Your task to perform on an android device: Go to Android settings Image 0: 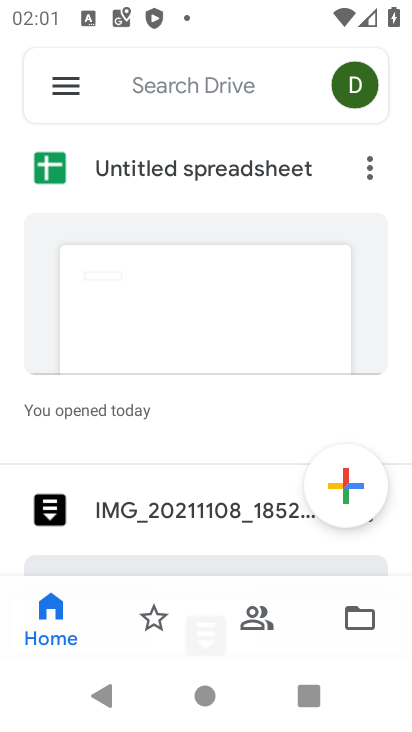
Step 0: press home button
Your task to perform on an android device: Go to Android settings Image 1: 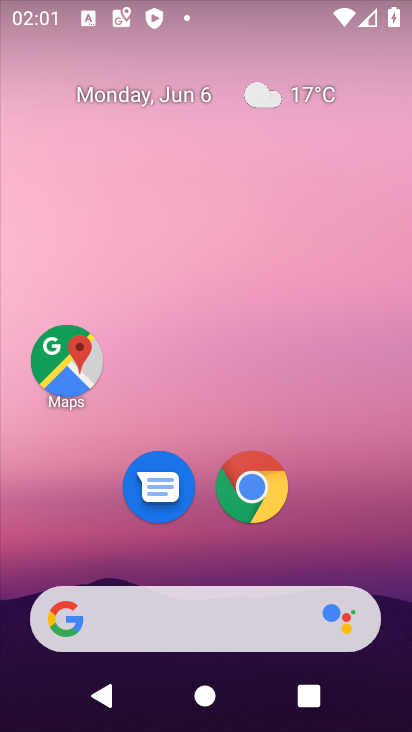
Step 1: drag from (401, 632) to (314, 40)
Your task to perform on an android device: Go to Android settings Image 2: 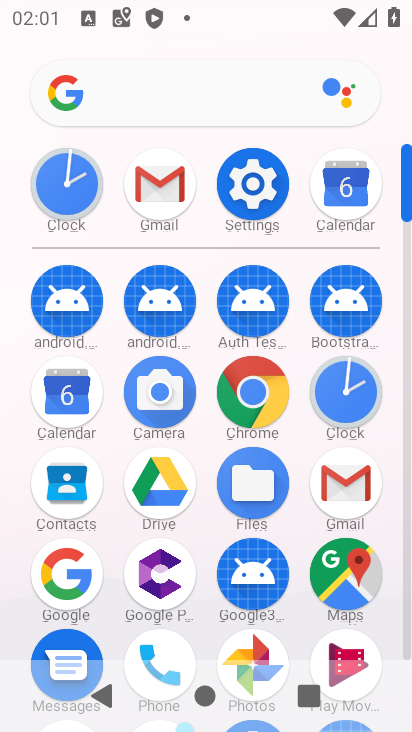
Step 2: click (409, 626)
Your task to perform on an android device: Go to Android settings Image 3: 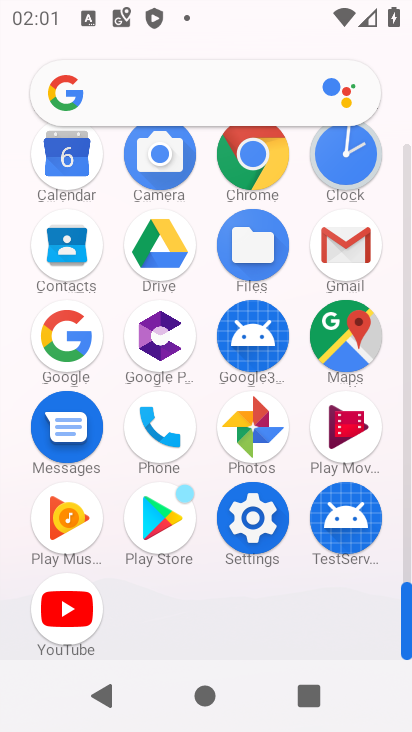
Step 3: click (252, 520)
Your task to perform on an android device: Go to Android settings Image 4: 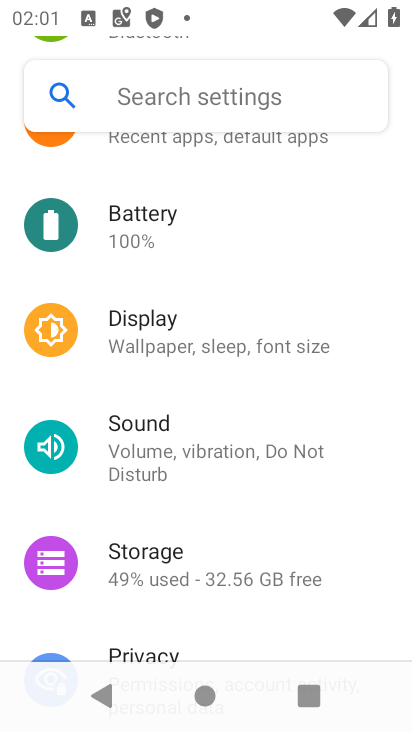
Step 4: drag from (343, 592) to (323, 132)
Your task to perform on an android device: Go to Android settings Image 5: 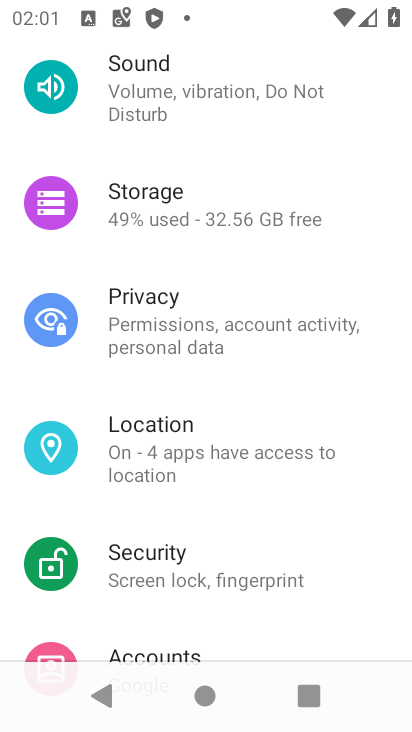
Step 5: drag from (342, 608) to (353, 154)
Your task to perform on an android device: Go to Android settings Image 6: 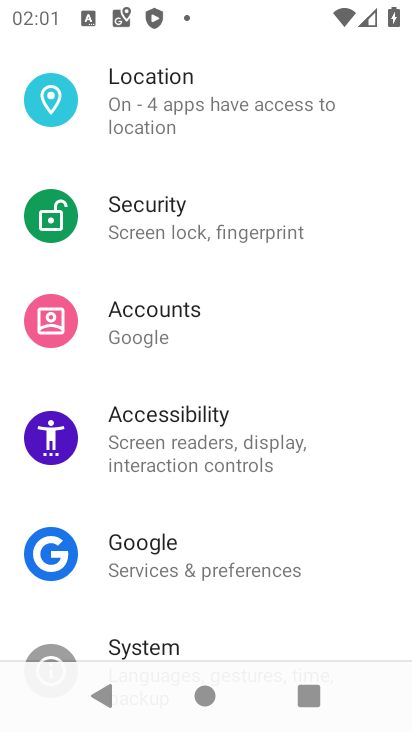
Step 6: drag from (340, 620) to (321, 199)
Your task to perform on an android device: Go to Android settings Image 7: 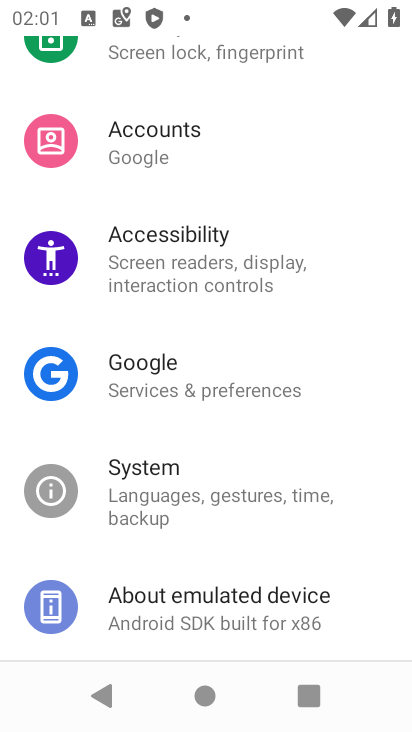
Step 7: click (166, 610)
Your task to perform on an android device: Go to Android settings Image 8: 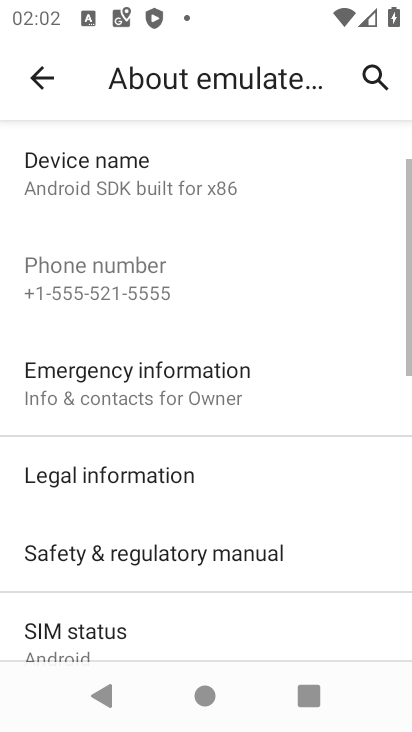
Step 8: task complete